Your task to perform on an android device: Turn on the flashlight Image 0: 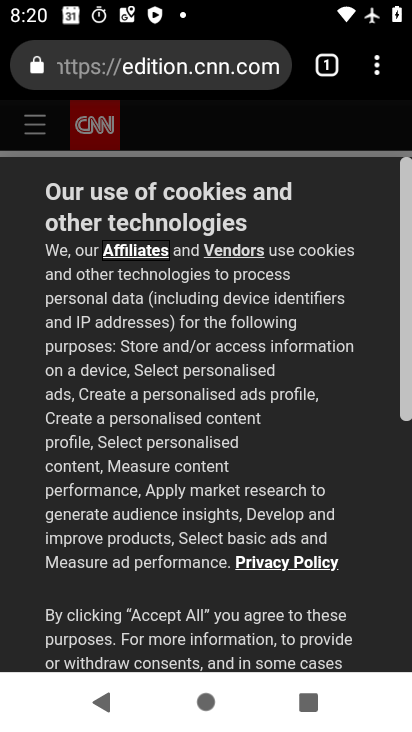
Step 0: press home button
Your task to perform on an android device: Turn on the flashlight Image 1: 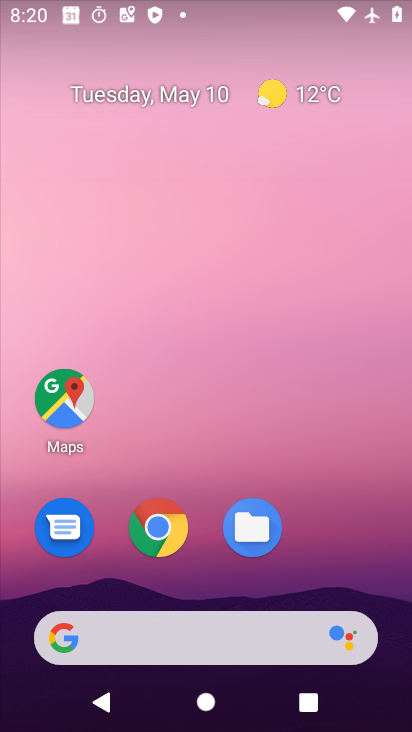
Step 1: drag from (209, 544) to (182, 85)
Your task to perform on an android device: Turn on the flashlight Image 2: 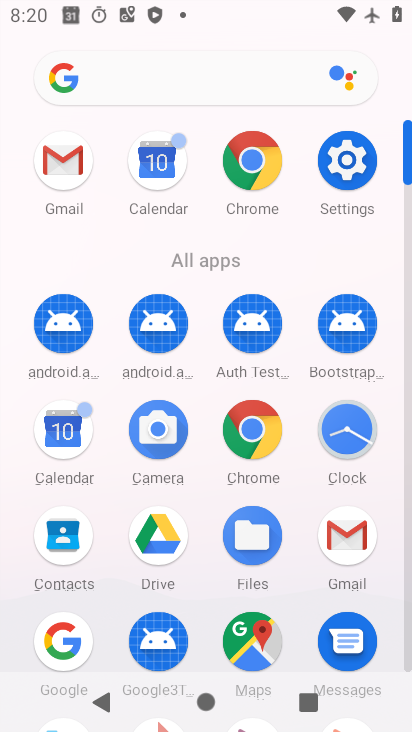
Step 2: click (356, 173)
Your task to perform on an android device: Turn on the flashlight Image 3: 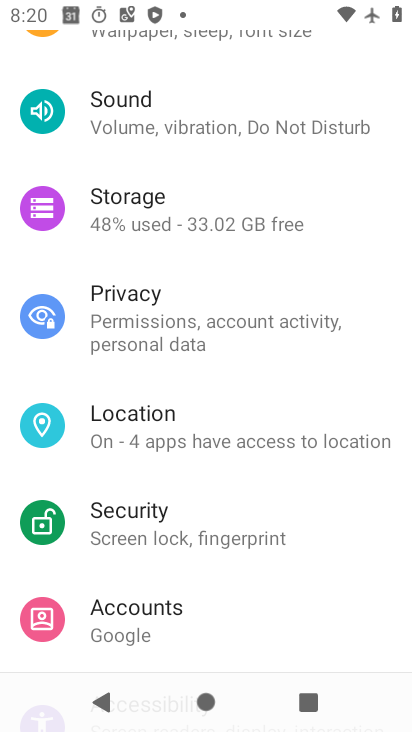
Step 3: drag from (165, 155) to (183, 499)
Your task to perform on an android device: Turn on the flashlight Image 4: 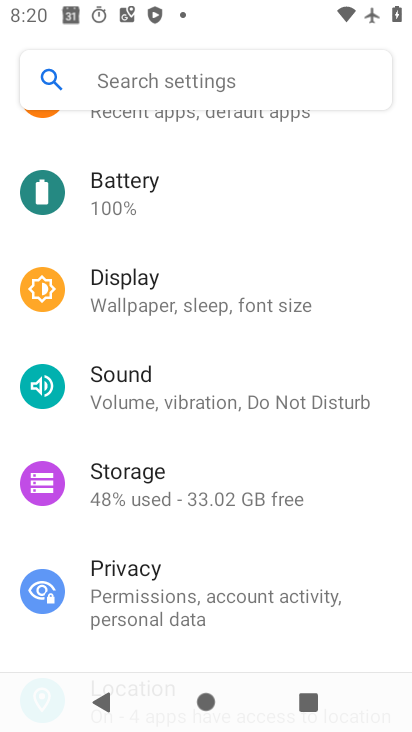
Step 4: click (127, 78)
Your task to perform on an android device: Turn on the flashlight Image 5: 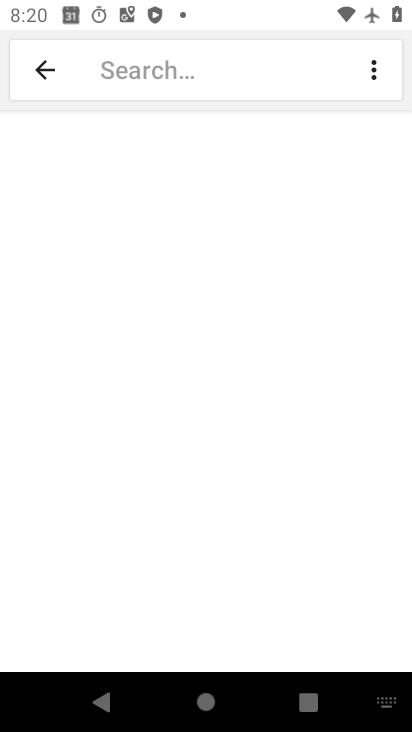
Step 5: type "flashlight"
Your task to perform on an android device: Turn on the flashlight Image 6: 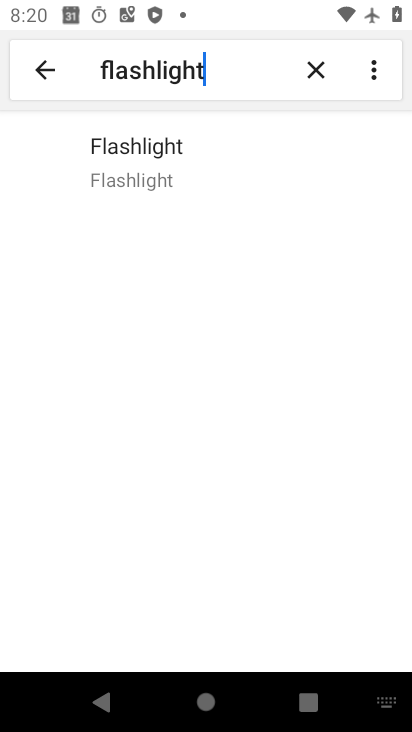
Step 6: click (117, 172)
Your task to perform on an android device: Turn on the flashlight Image 7: 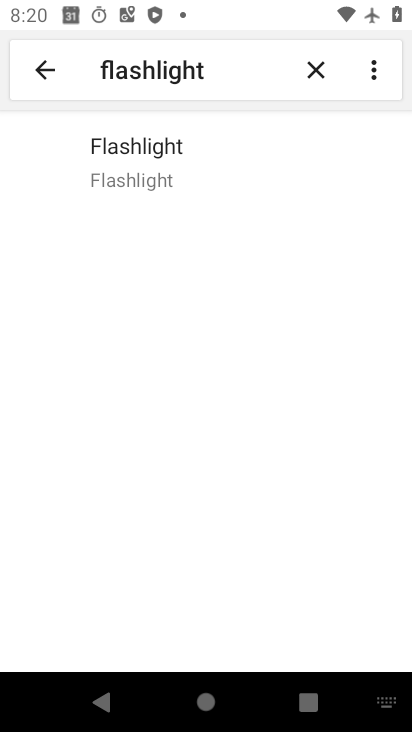
Step 7: task complete